Your task to perform on an android device: turn notification dots off Image 0: 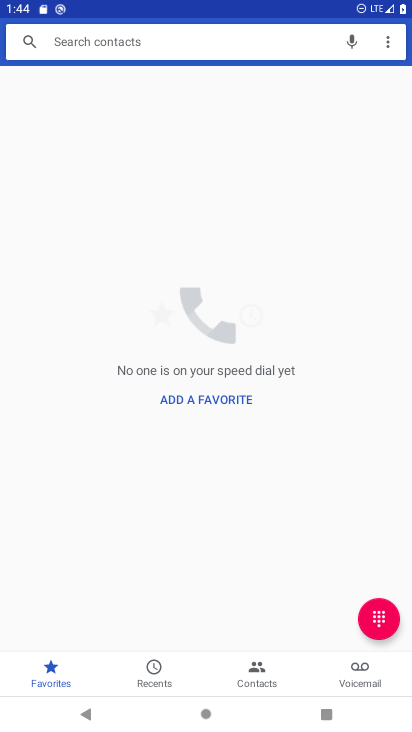
Step 0: press home button
Your task to perform on an android device: turn notification dots off Image 1: 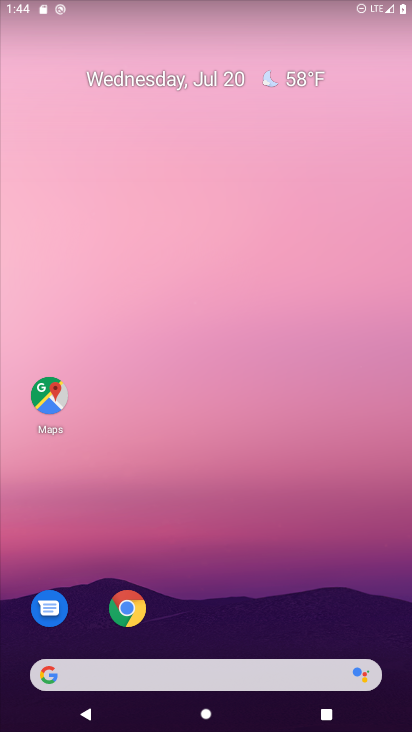
Step 1: drag from (236, 729) to (210, 206)
Your task to perform on an android device: turn notification dots off Image 2: 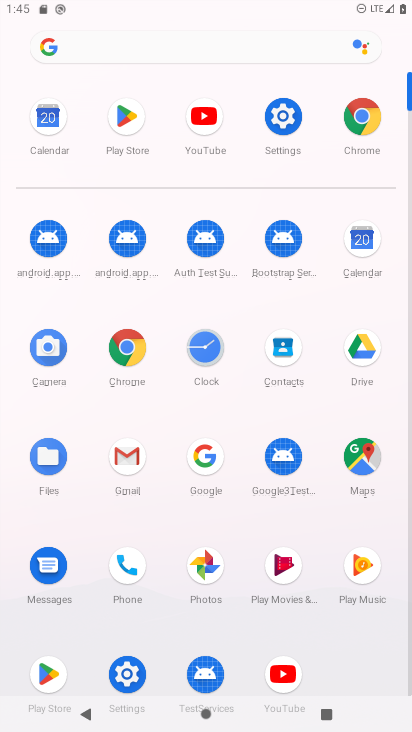
Step 2: click (287, 122)
Your task to perform on an android device: turn notification dots off Image 3: 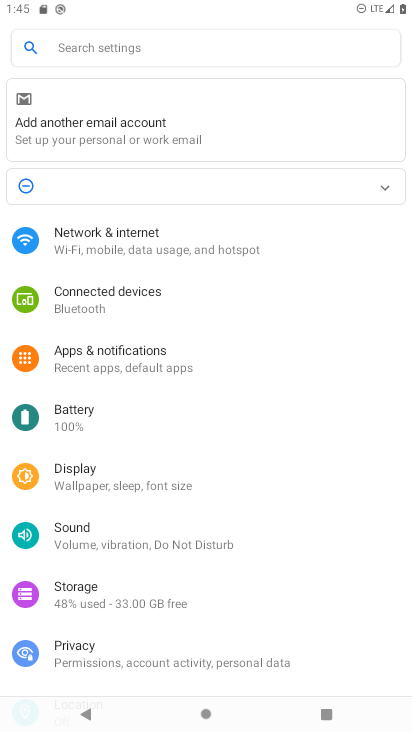
Step 3: click (109, 355)
Your task to perform on an android device: turn notification dots off Image 4: 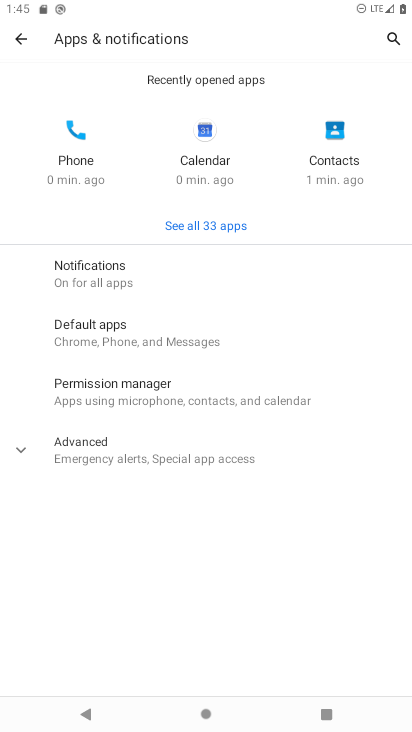
Step 4: click (79, 282)
Your task to perform on an android device: turn notification dots off Image 5: 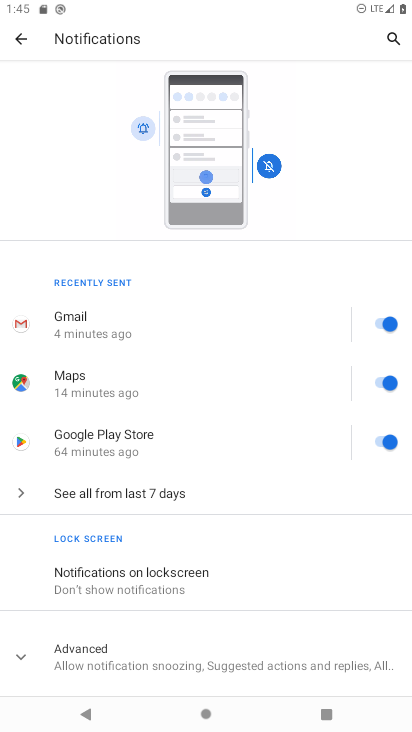
Step 5: click (205, 659)
Your task to perform on an android device: turn notification dots off Image 6: 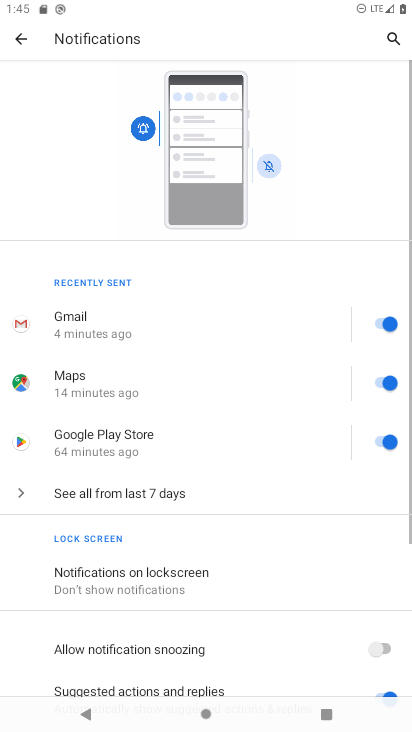
Step 6: drag from (273, 639) to (243, 422)
Your task to perform on an android device: turn notification dots off Image 7: 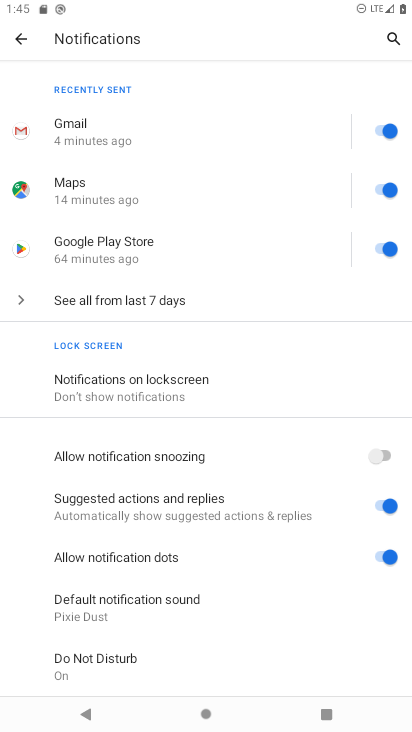
Step 7: click (377, 557)
Your task to perform on an android device: turn notification dots off Image 8: 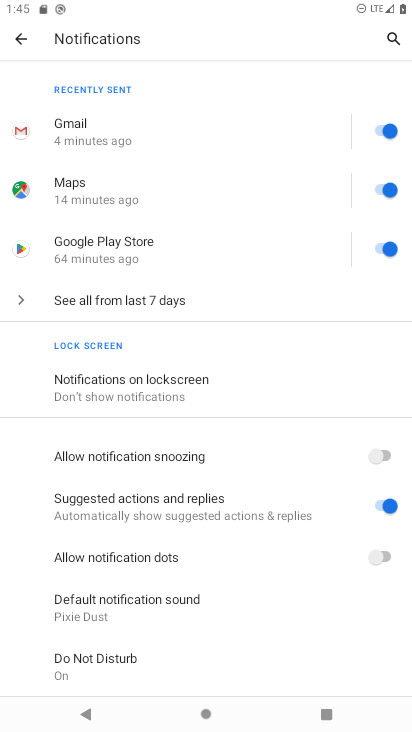
Step 8: task complete